Your task to perform on an android device: Open eBay Image 0: 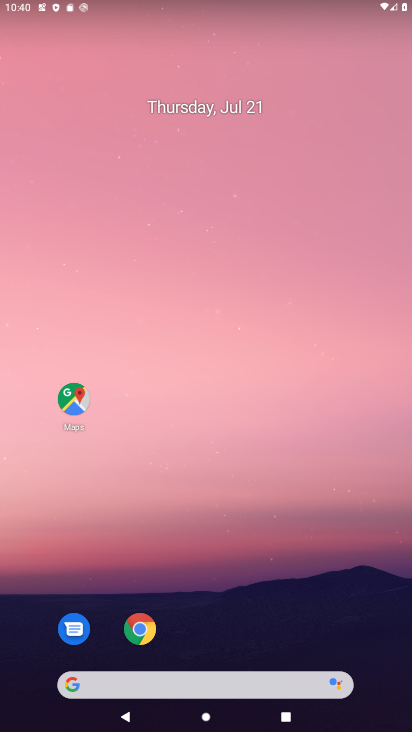
Step 0: click (149, 639)
Your task to perform on an android device: Open eBay Image 1: 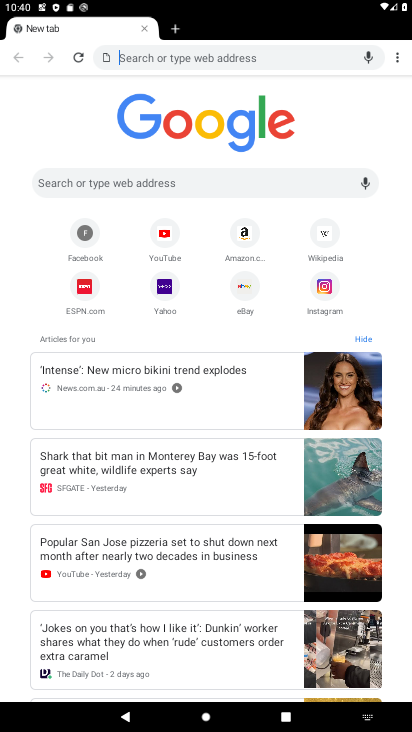
Step 1: click (253, 285)
Your task to perform on an android device: Open eBay Image 2: 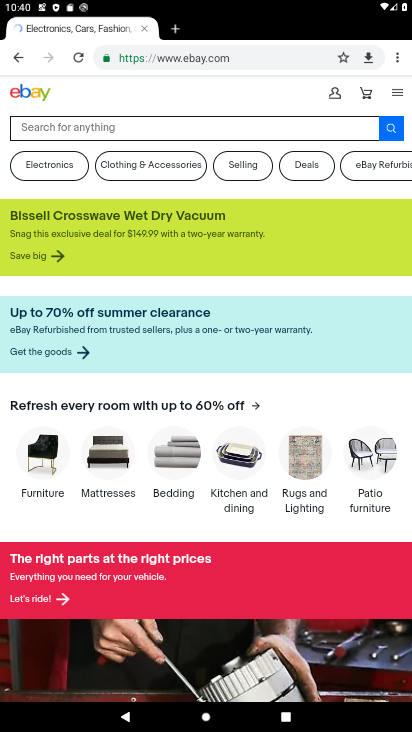
Step 2: task complete